Your task to perform on an android device: open sync settings in chrome Image 0: 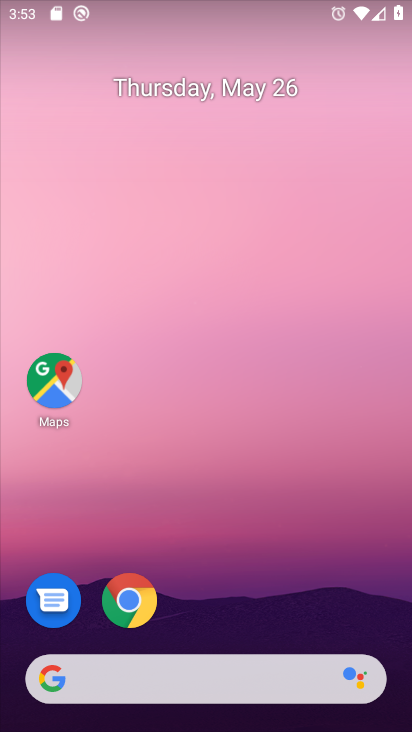
Step 0: click (140, 604)
Your task to perform on an android device: open sync settings in chrome Image 1: 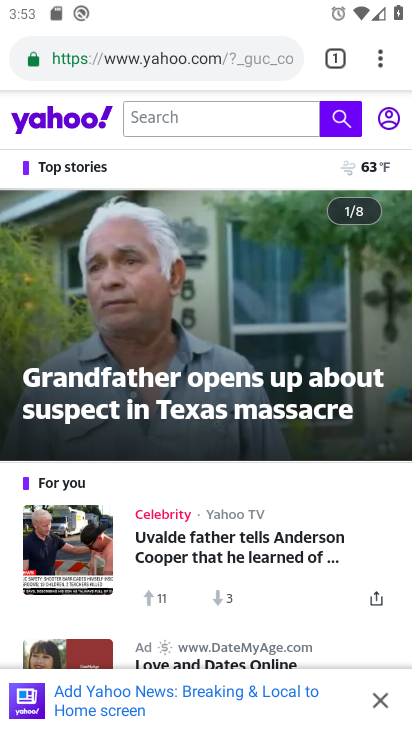
Step 1: click (385, 53)
Your task to perform on an android device: open sync settings in chrome Image 2: 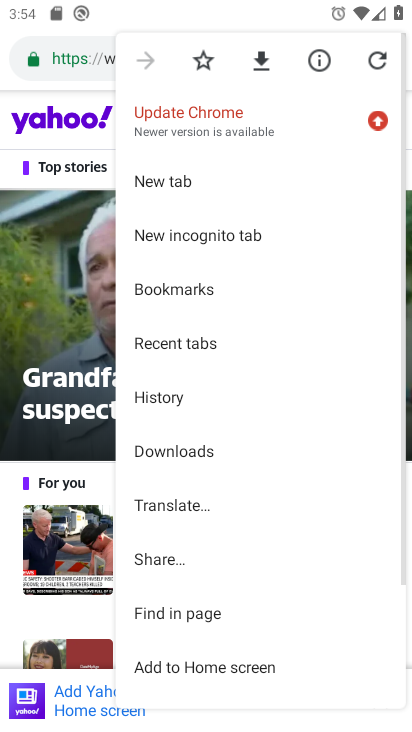
Step 2: drag from (191, 616) to (216, 378)
Your task to perform on an android device: open sync settings in chrome Image 3: 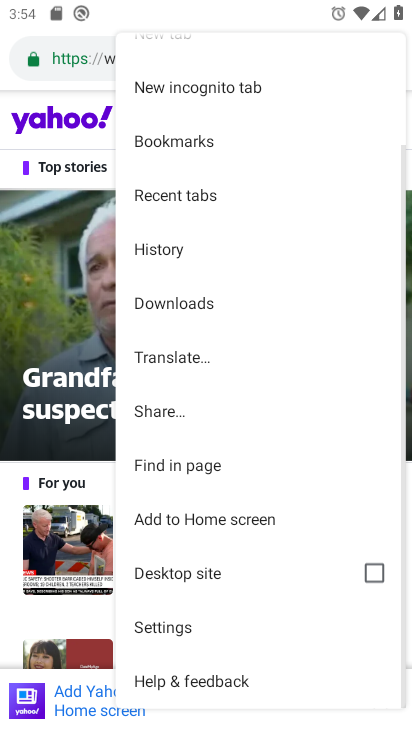
Step 3: click (185, 630)
Your task to perform on an android device: open sync settings in chrome Image 4: 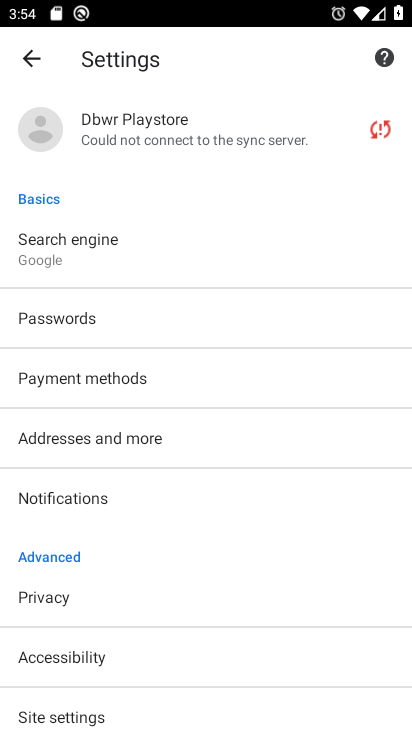
Step 4: click (224, 140)
Your task to perform on an android device: open sync settings in chrome Image 5: 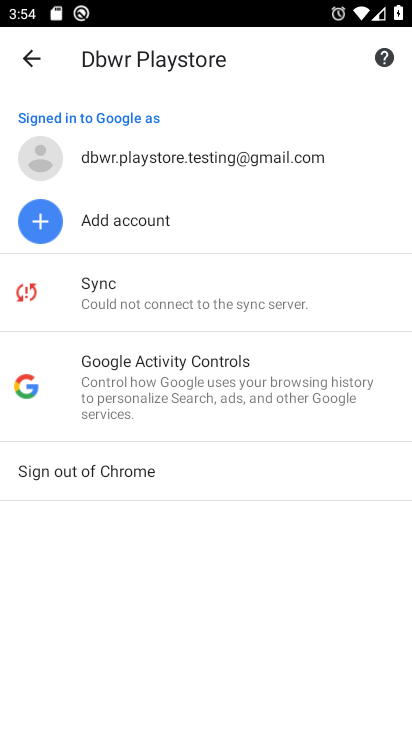
Step 5: click (173, 298)
Your task to perform on an android device: open sync settings in chrome Image 6: 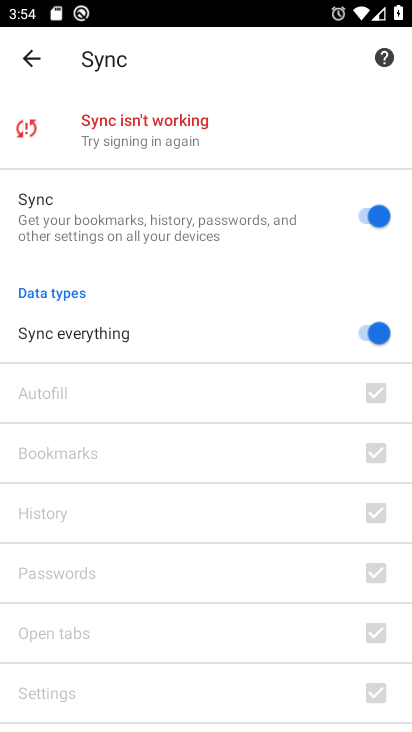
Step 6: task complete